Your task to perform on an android device: turn vacation reply on in the gmail app Image 0: 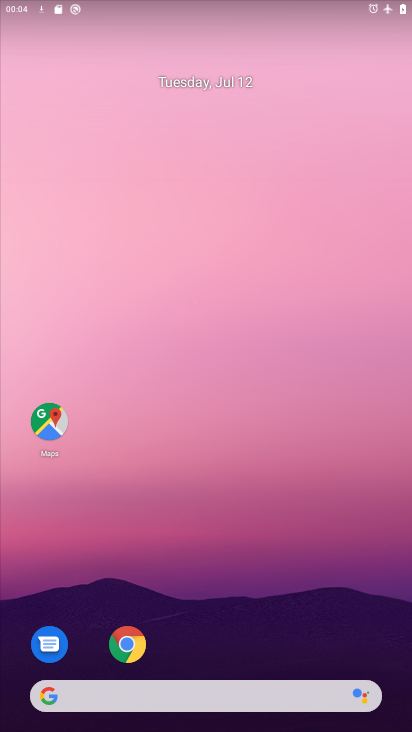
Step 0: drag from (171, 597) to (184, 140)
Your task to perform on an android device: turn vacation reply on in the gmail app Image 1: 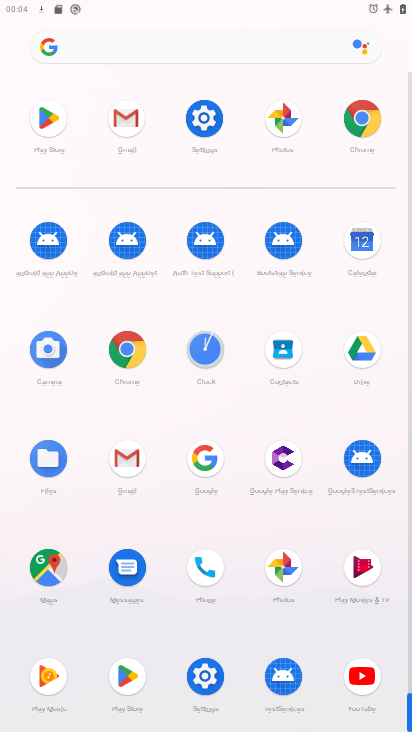
Step 1: click (115, 117)
Your task to perform on an android device: turn vacation reply on in the gmail app Image 2: 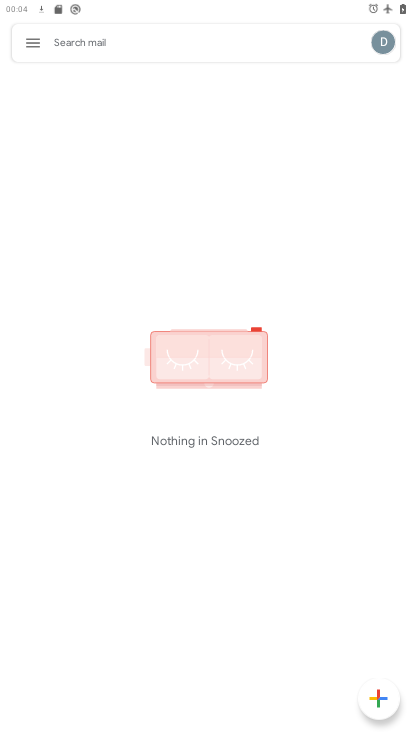
Step 2: click (28, 39)
Your task to perform on an android device: turn vacation reply on in the gmail app Image 3: 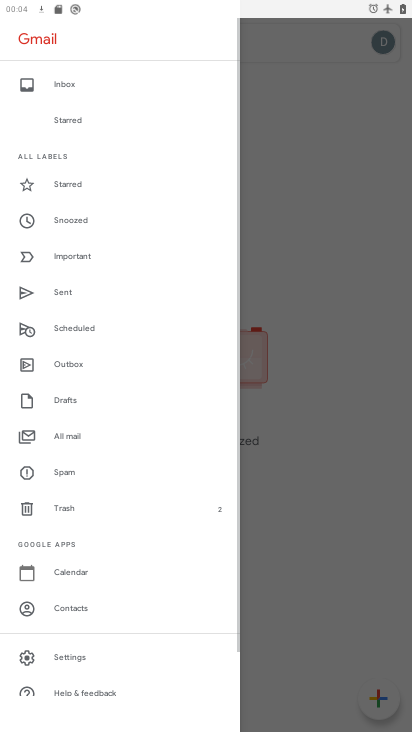
Step 3: click (74, 640)
Your task to perform on an android device: turn vacation reply on in the gmail app Image 4: 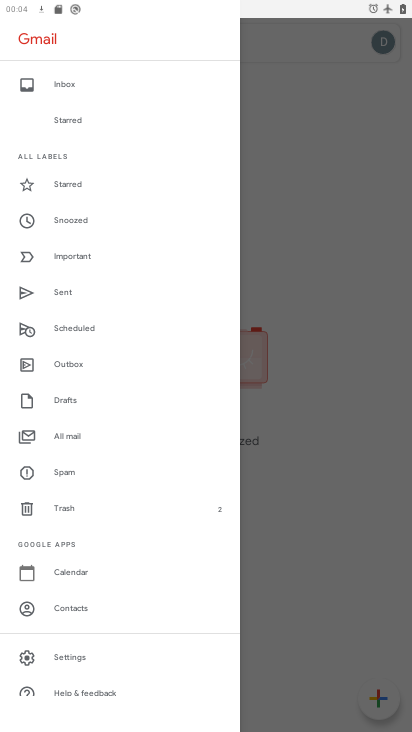
Step 4: click (74, 655)
Your task to perform on an android device: turn vacation reply on in the gmail app Image 5: 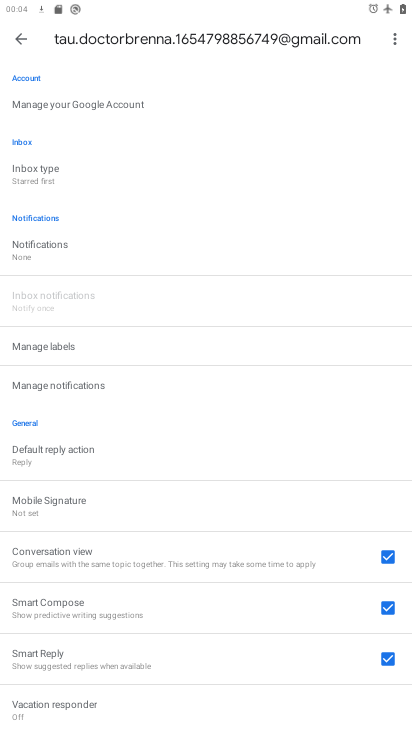
Step 5: drag from (119, 556) to (138, 321)
Your task to perform on an android device: turn vacation reply on in the gmail app Image 6: 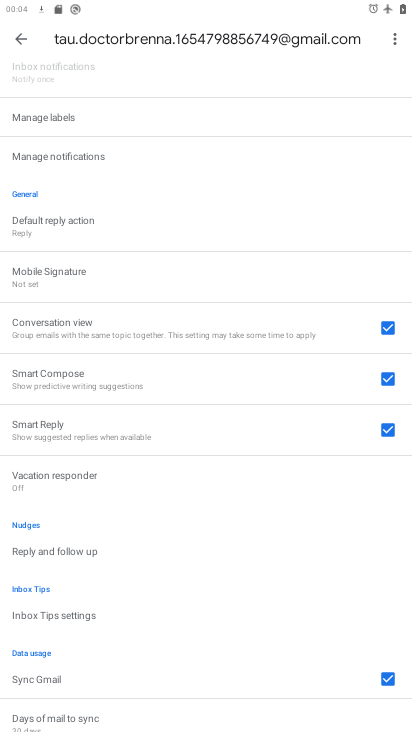
Step 6: click (77, 492)
Your task to perform on an android device: turn vacation reply on in the gmail app Image 7: 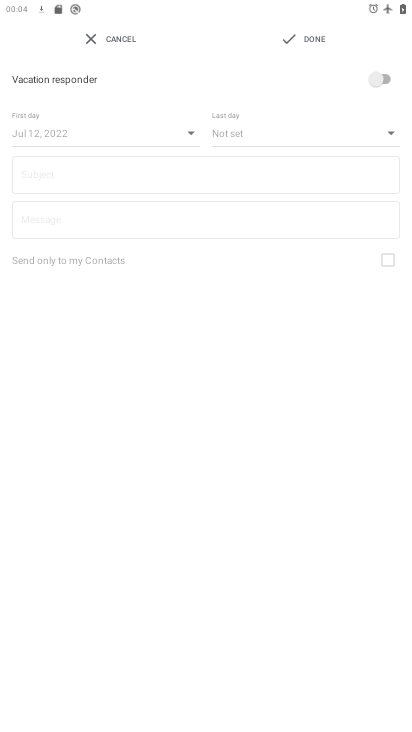
Step 7: click (380, 78)
Your task to perform on an android device: turn vacation reply on in the gmail app Image 8: 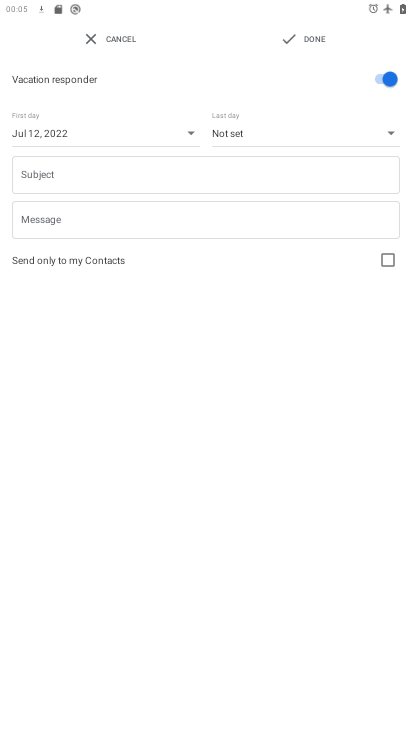
Step 8: task complete